Your task to perform on an android device: Find coffee shops on Maps Image 0: 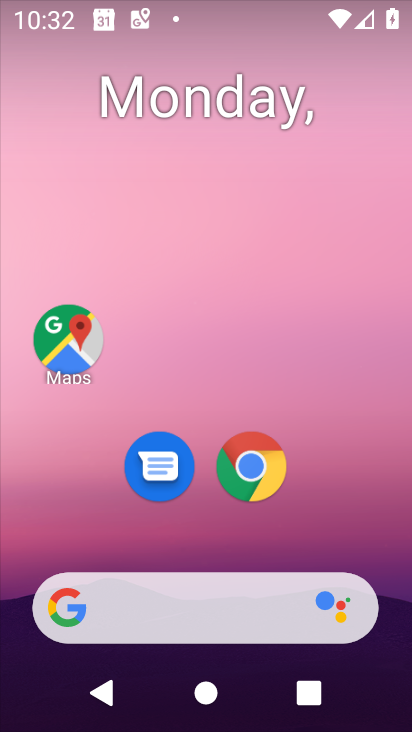
Step 0: drag from (317, 522) to (224, 233)
Your task to perform on an android device: Find coffee shops on Maps Image 1: 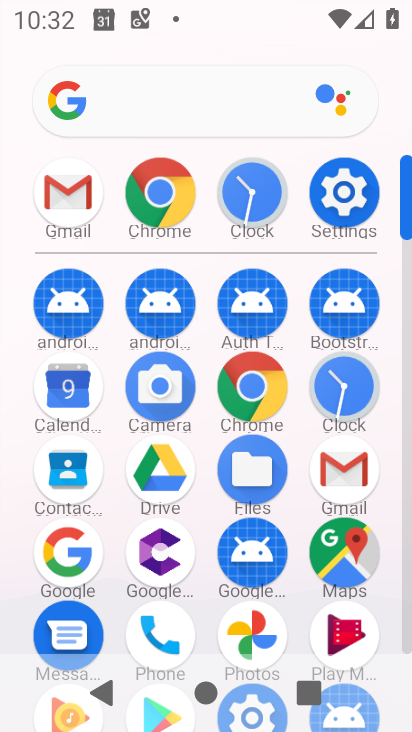
Step 1: click (348, 558)
Your task to perform on an android device: Find coffee shops on Maps Image 2: 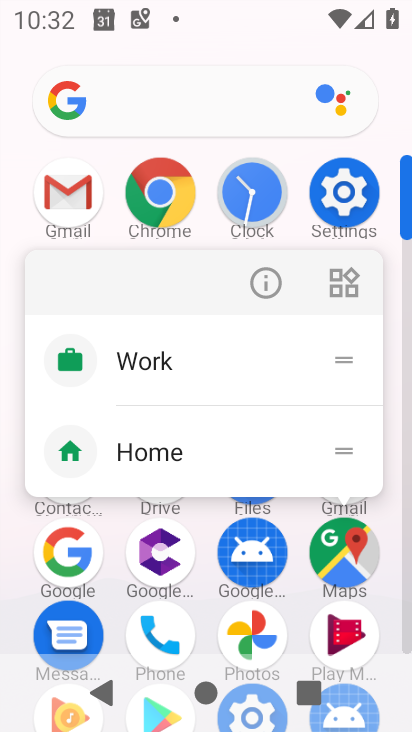
Step 2: click (164, 445)
Your task to perform on an android device: Find coffee shops on Maps Image 3: 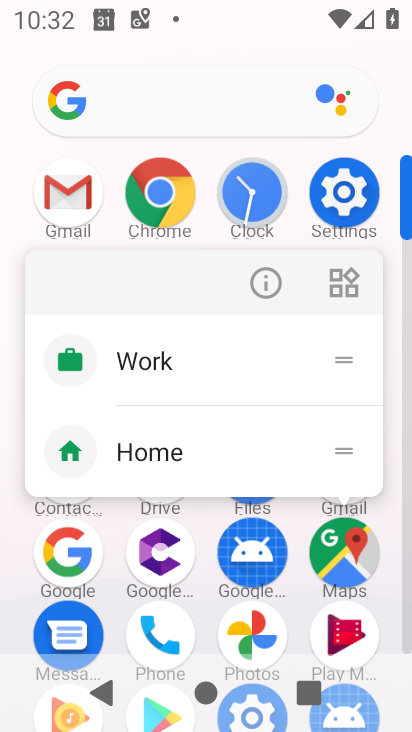
Step 3: click (164, 445)
Your task to perform on an android device: Find coffee shops on Maps Image 4: 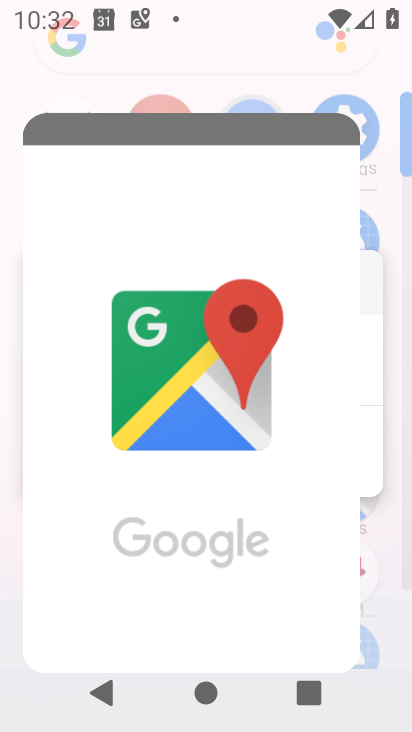
Step 4: click (164, 445)
Your task to perform on an android device: Find coffee shops on Maps Image 5: 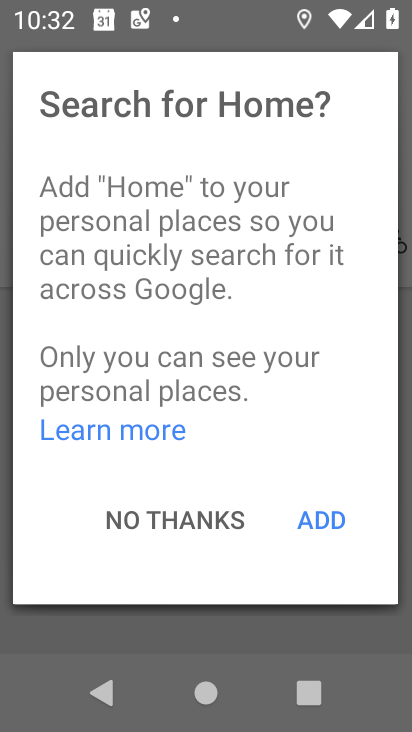
Step 5: click (341, 516)
Your task to perform on an android device: Find coffee shops on Maps Image 6: 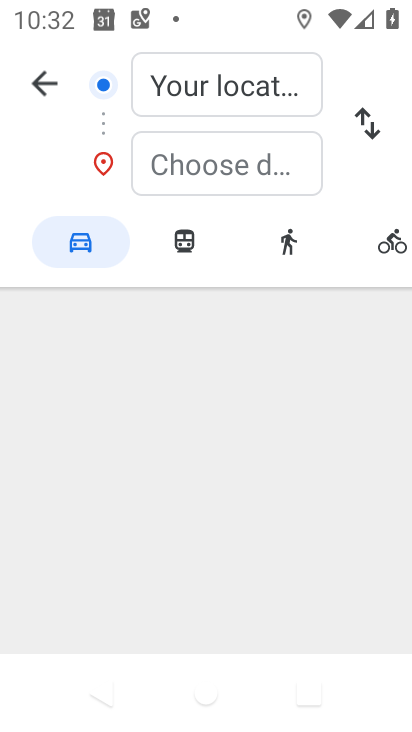
Step 6: click (327, 525)
Your task to perform on an android device: Find coffee shops on Maps Image 7: 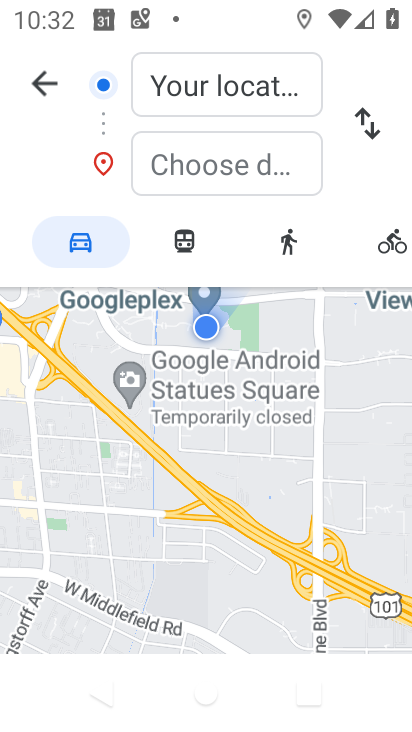
Step 7: click (327, 525)
Your task to perform on an android device: Find coffee shops on Maps Image 8: 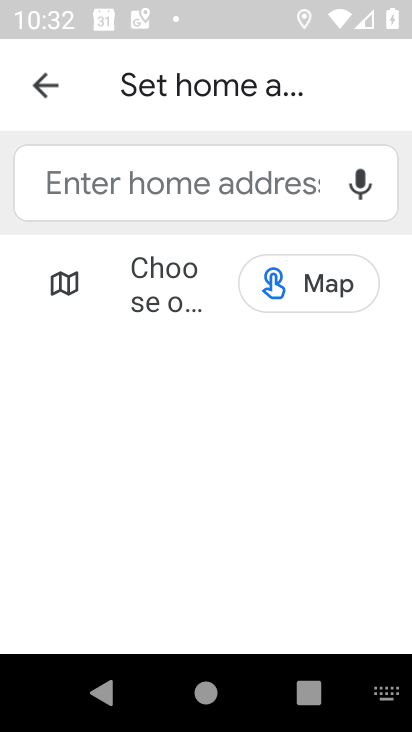
Step 8: click (121, 88)
Your task to perform on an android device: Find coffee shops on Maps Image 9: 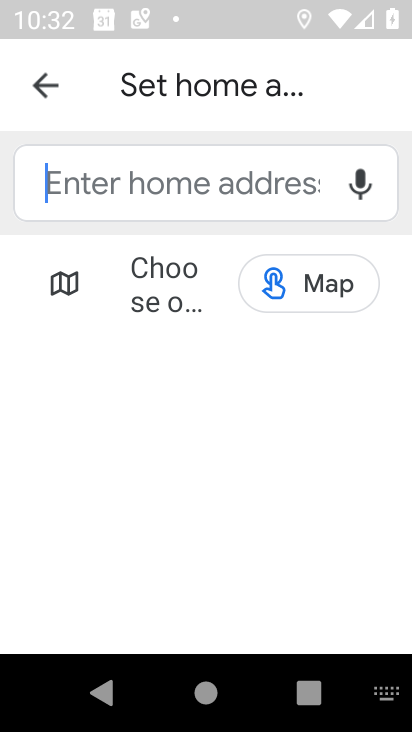
Step 9: click (31, 83)
Your task to perform on an android device: Find coffee shops on Maps Image 10: 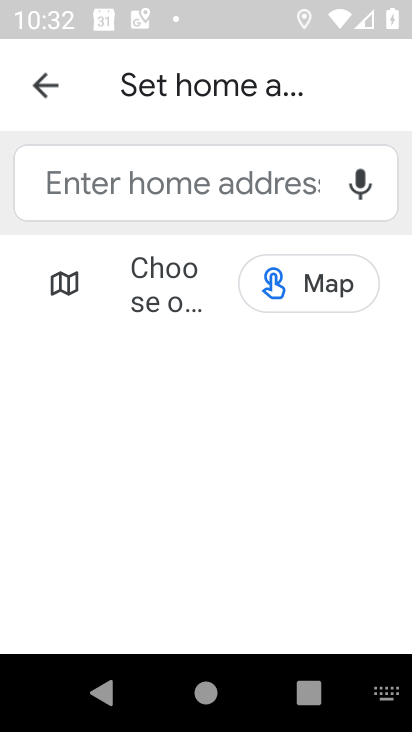
Step 10: click (40, 81)
Your task to perform on an android device: Find coffee shops on Maps Image 11: 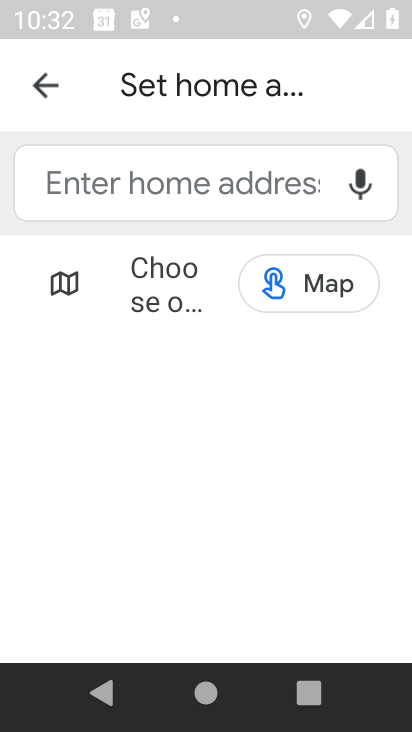
Step 11: click (41, 81)
Your task to perform on an android device: Find coffee shops on Maps Image 12: 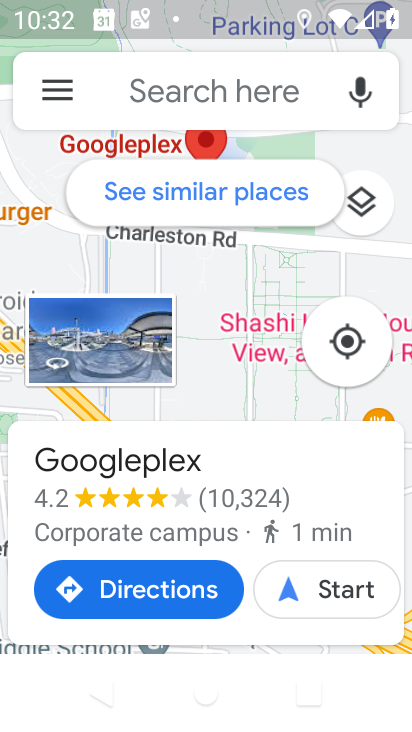
Step 12: click (136, 92)
Your task to perform on an android device: Find coffee shops on Maps Image 13: 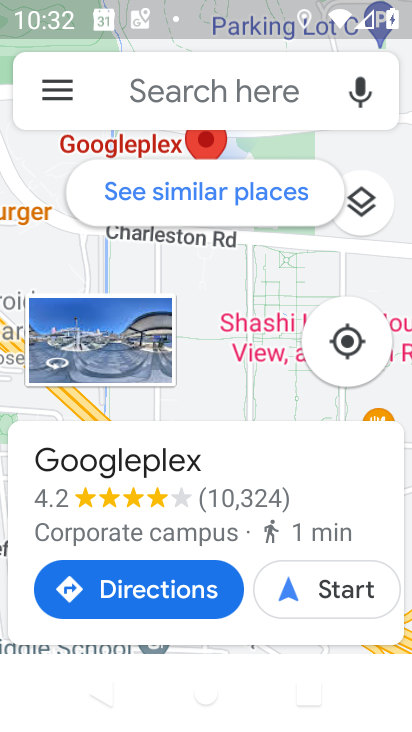
Step 13: click (136, 90)
Your task to perform on an android device: Find coffee shops on Maps Image 14: 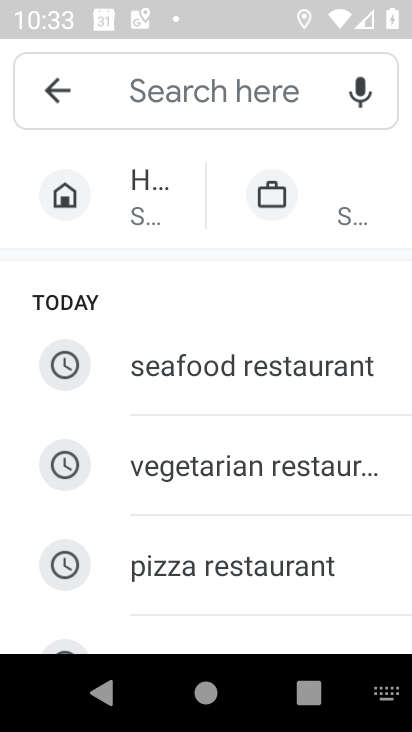
Step 14: type "coffee"
Your task to perform on an android device: Find coffee shops on Maps Image 15: 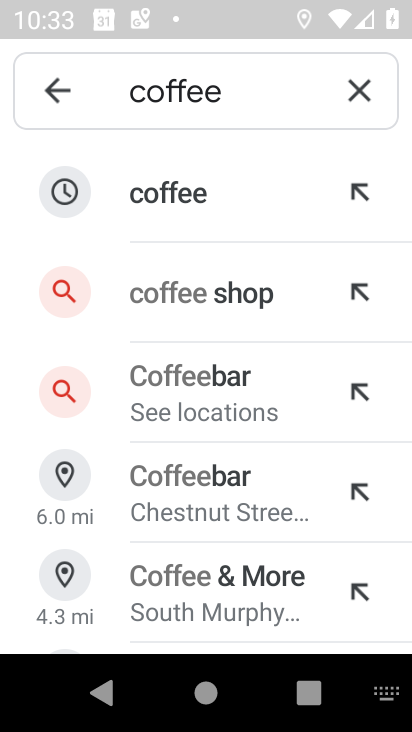
Step 15: click (155, 203)
Your task to perform on an android device: Find coffee shops on Maps Image 16: 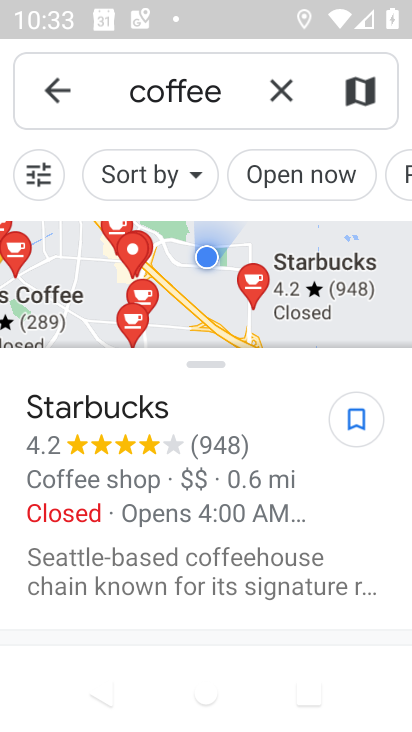
Step 16: task complete